Your task to perform on an android device: stop showing notifications on the lock screen Image 0: 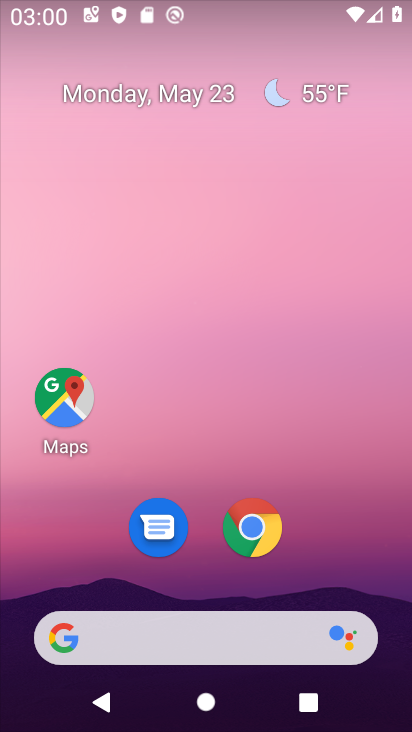
Step 0: drag from (324, 549) to (302, 38)
Your task to perform on an android device: stop showing notifications on the lock screen Image 1: 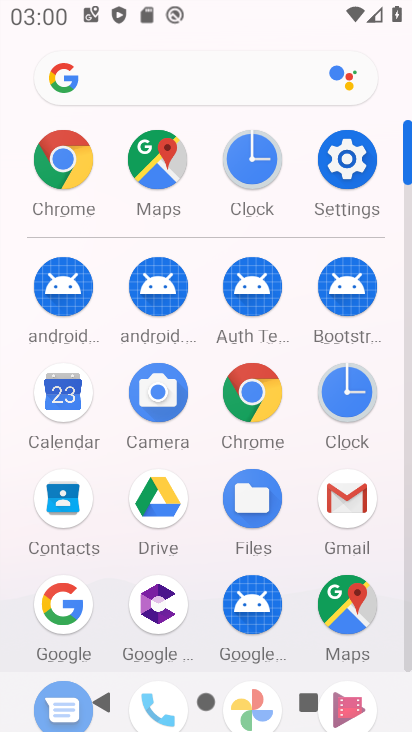
Step 1: drag from (9, 605) to (7, 217)
Your task to perform on an android device: stop showing notifications on the lock screen Image 2: 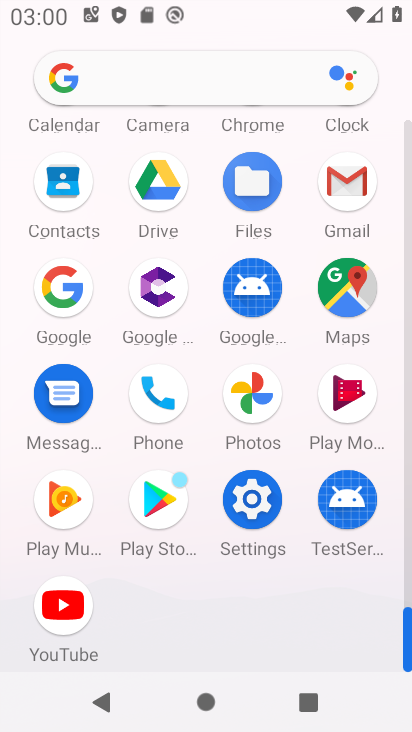
Step 2: click (252, 495)
Your task to perform on an android device: stop showing notifications on the lock screen Image 3: 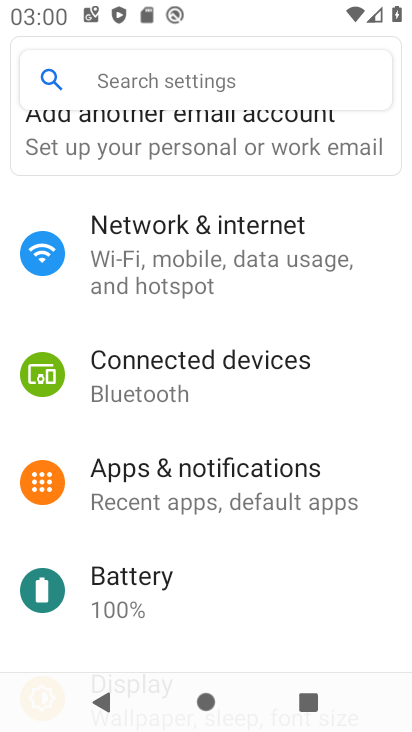
Step 3: drag from (257, 569) to (331, 185)
Your task to perform on an android device: stop showing notifications on the lock screen Image 4: 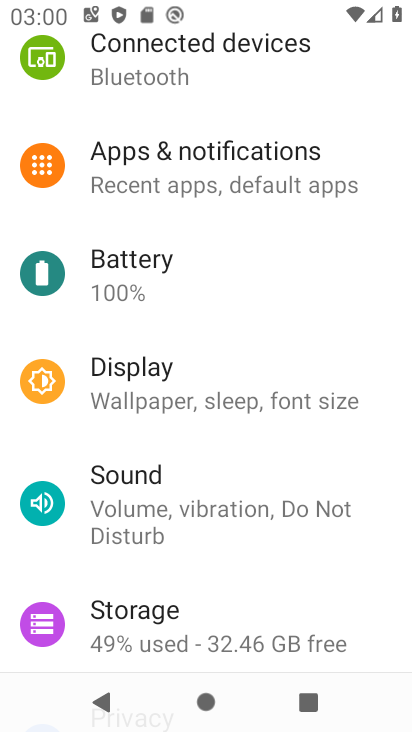
Step 4: drag from (263, 497) to (303, 136)
Your task to perform on an android device: stop showing notifications on the lock screen Image 5: 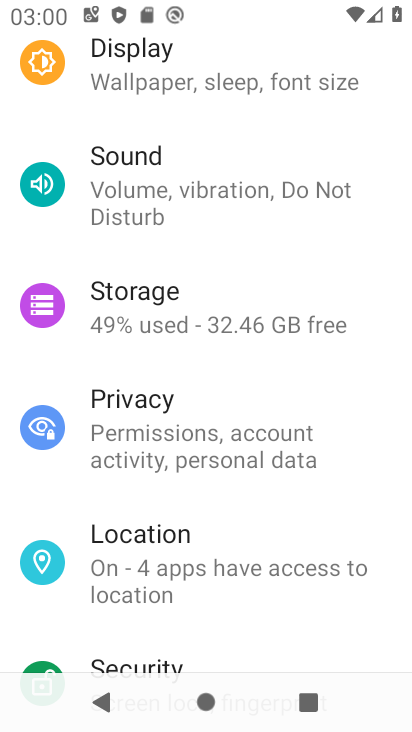
Step 5: drag from (248, 508) to (284, 108)
Your task to perform on an android device: stop showing notifications on the lock screen Image 6: 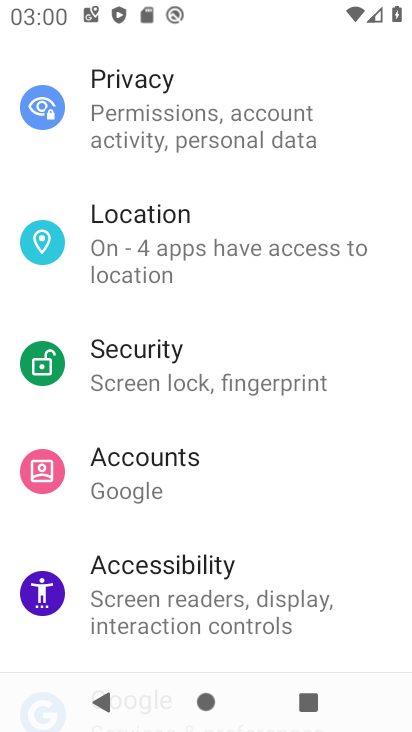
Step 6: drag from (255, 513) to (297, 100)
Your task to perform on an android device: stop showing notifications on the lock screen Image 7: 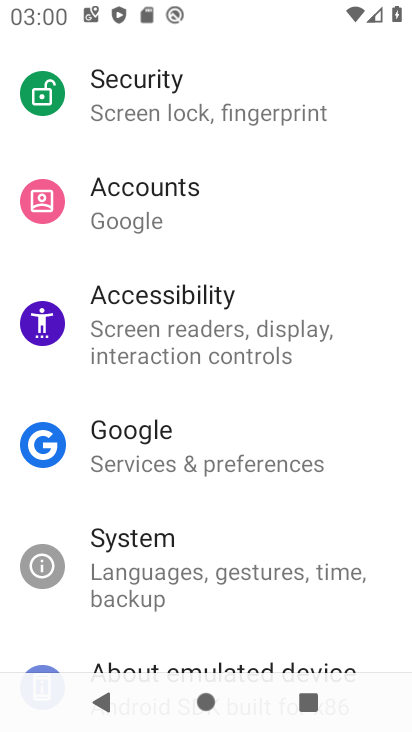
Step 7: drag from (282, 504) to (322, 107)
Your task to perform on an android device: stop showing notifications on the lock screen Image 8: 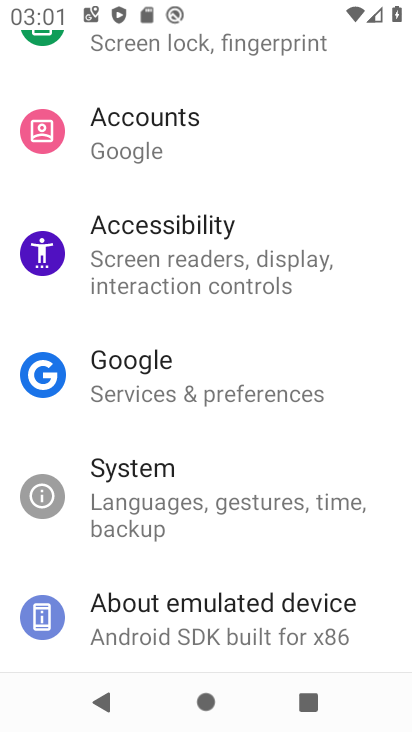
Step 8: click (256, 608)
Your task to perform on an android device: stop showing notifications on the lock screen Image 9: 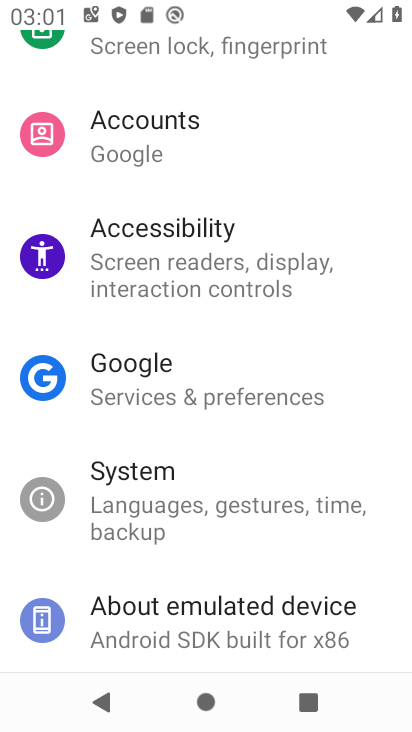
Step 9: drag from (247, 189) to (246, 638)
Your task to perform on an android device: stop showing notifications on the lock screen Image 10: 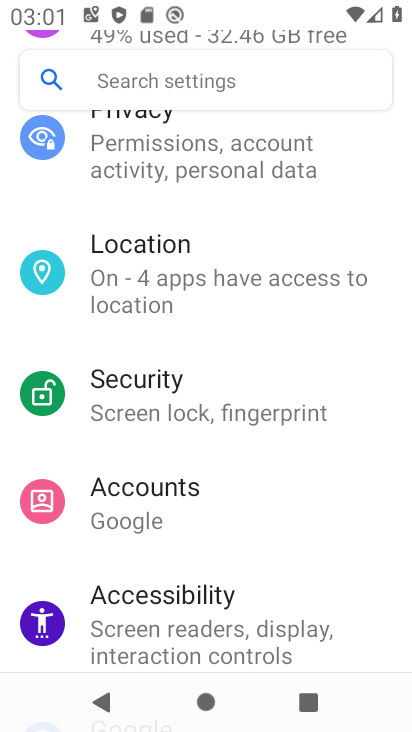
Step 10: drag from (284, 540) to (307, 683)
Your task to perform on an android device: stop showing notifications on the lock screen Image 11: 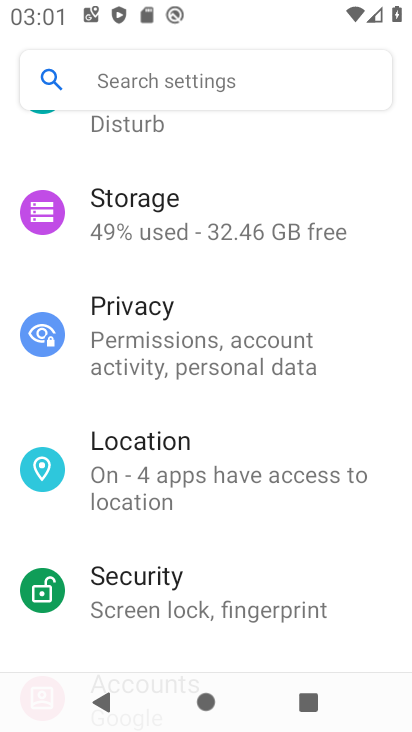
Step 11: drag from (313, 176) to (306, 571)
Your task to perform on an android device: stop showing notifications on the lock screen Image 12: 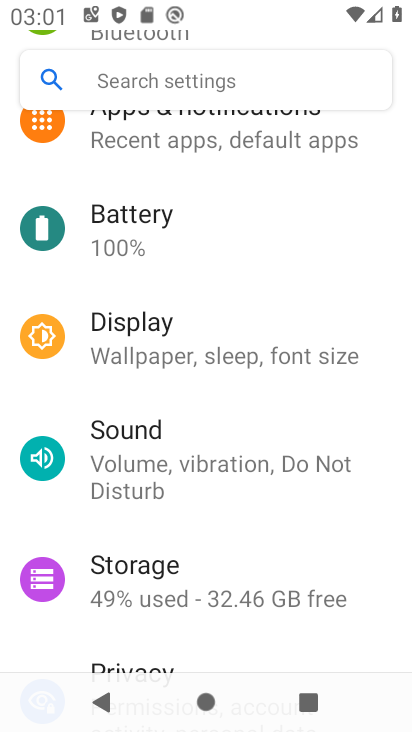
Step 12: drag from (246, 191) to (246, 521)
Your task to perform on an android device: stop showing notifications on the lock screen Image 13: 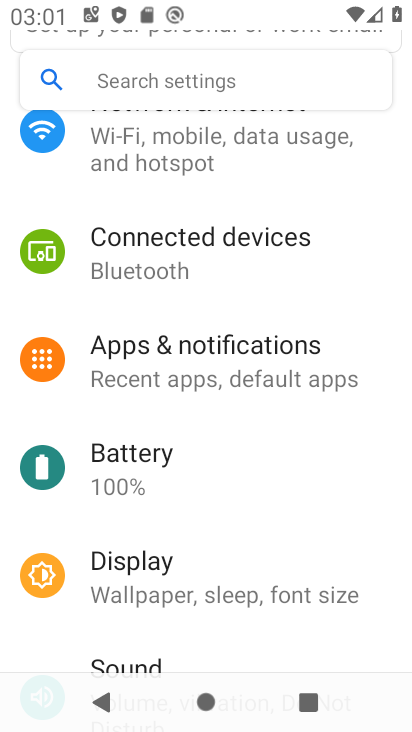
Step 13: click (210, 356)
Your task to perform on an android device: stop showing notifications on the lock screen Image 14: 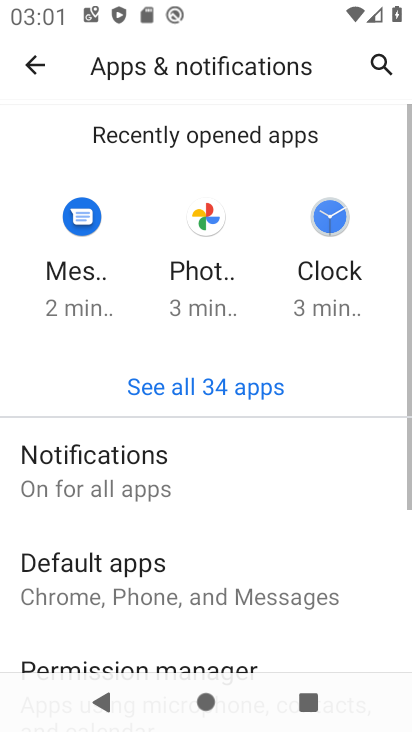
Step 14: click (167, 461)
Your task to perform on an android device: stop showing notifications on the lock screen Image 15: 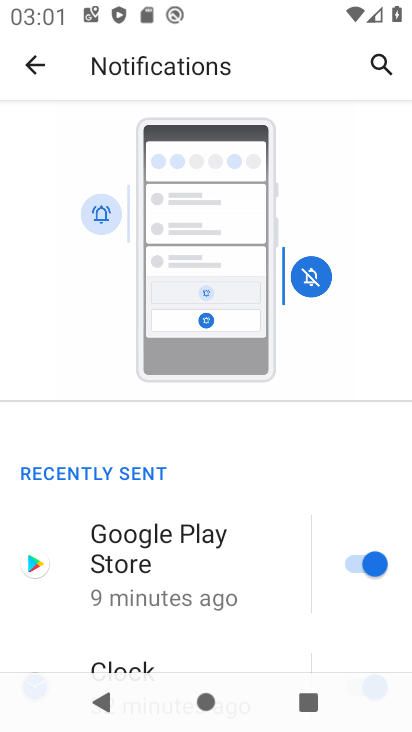
Step 15: drag from (233, 613) to (265, 211)
Your task to perform on an android device: stop showing notifications on the lock screen Image 16: 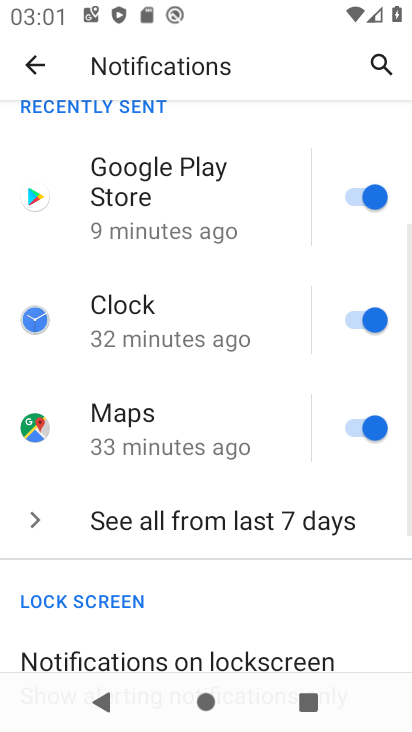
Step 16: drag from (224, 565) to (276, 186)
Your task to perform on an android device: stop showing notifications on the lock screen Image 17: 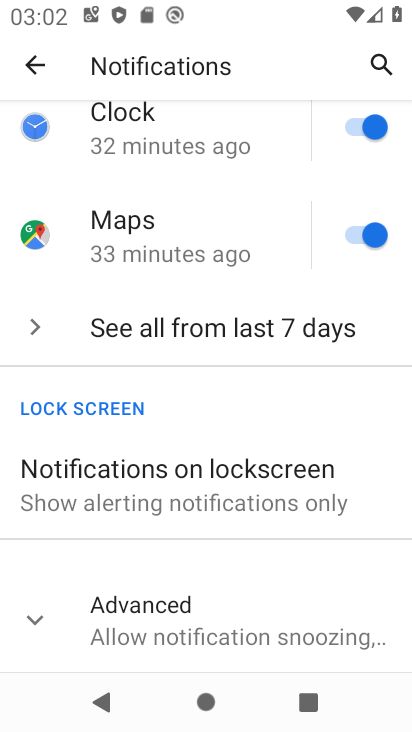
Step 17: click (39, 618)
Your task to perform on an android device: stop showing notifications on the lock screen Image 18: 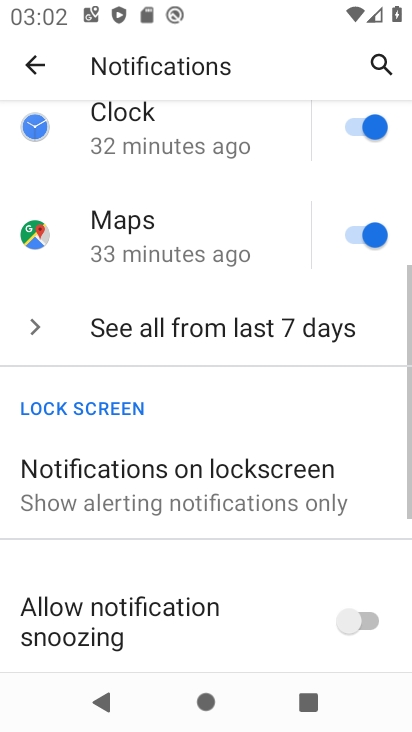
Step 18: drag from (242, 607) to (253, 436)
Your task to perform on an android device: stop showing notifications on the lock screen Image 19: 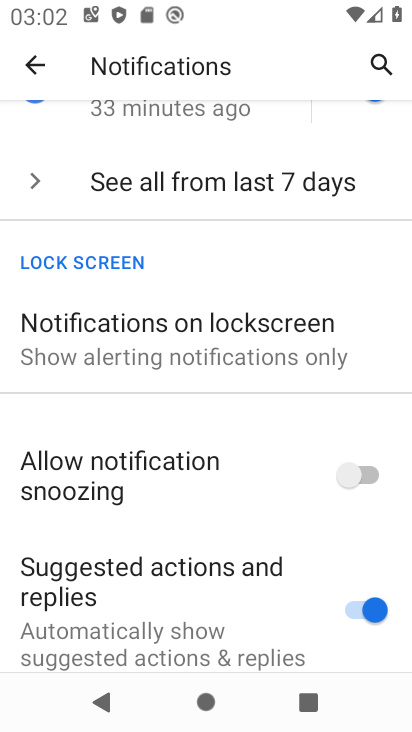
Step 19: click (221, 297)
Your task to perform on an android device: stop showing notifications on the lock screen Image 20: 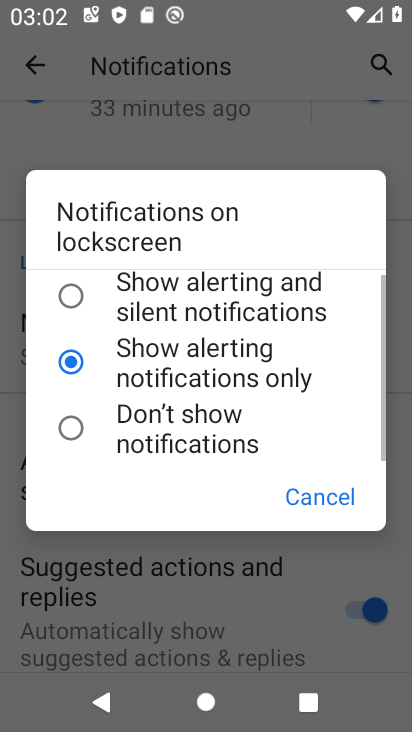
Step 20: click (193, 432)
Your task to perform on an android device: stop showing notifications on the lock screen Image 21: 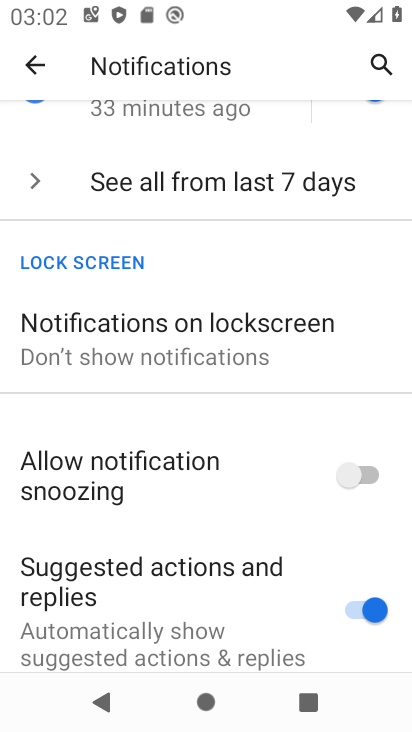
Step 21: task complete